Your task to perform on an android device: Go to Reddit.com Image 0: 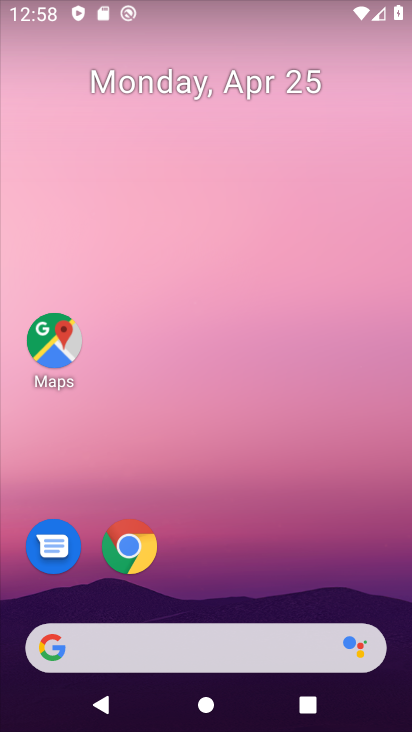
Step 0: drag from (185, 448) to (185, 78)
Your task to perform on an android device: Go to Reddit.com Image 1: 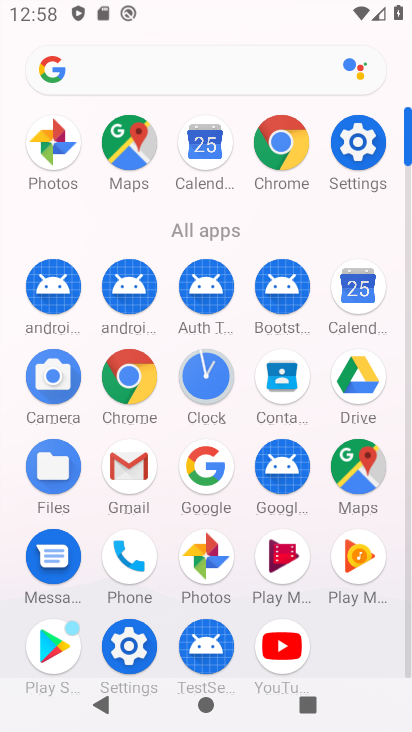
Step 1: click (121, 378)
Your task to perform on an android device: Go to Reddit.com Image 2: 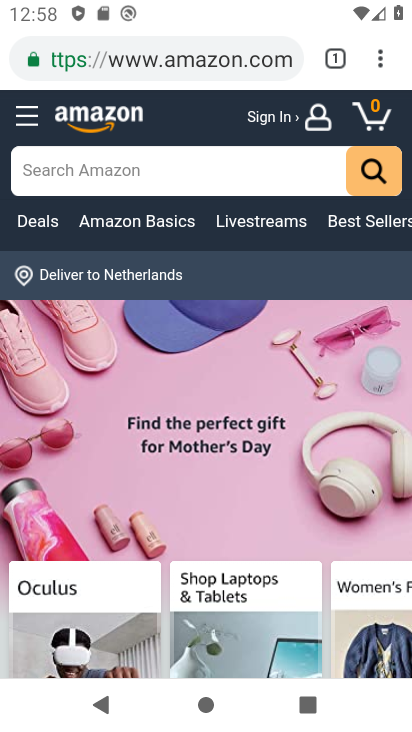
Step 2: click (322, 60)
Your task to perform on an android device: Go to Reddit.com Image 3: 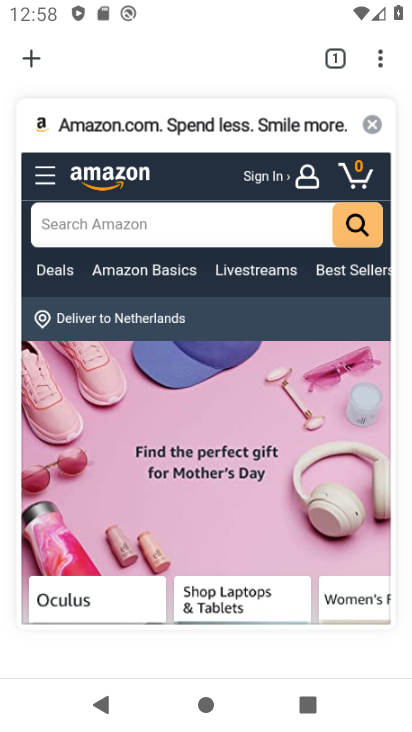
Step 3: click (13, 54)
Your task to perform on an android device: Go to Reddit.com Image 4: 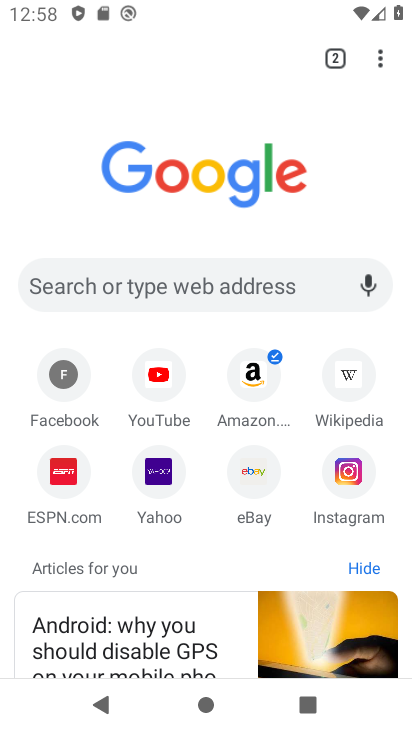
Step 4: click (165, 282)
Your task to perform on an android device: Go to Reddit.com Image 5: 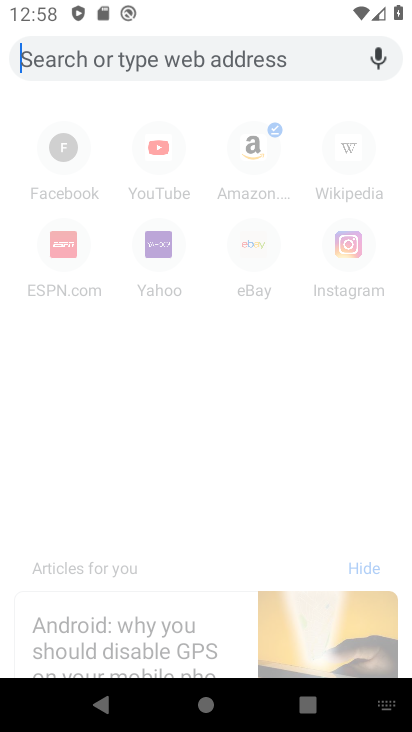
Step 5: type "reddit"
Your task to perform on an android device: Go to Reddit.com Image 6: 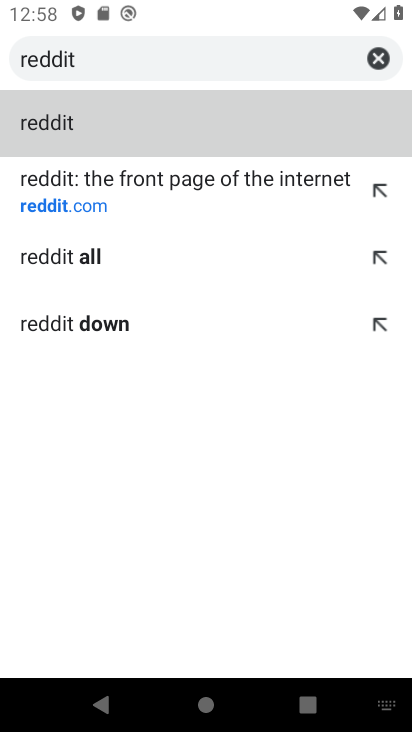
Step 6: click (198, 201)
Your task to perform on an android device: Go to Reddit.com Image 7: 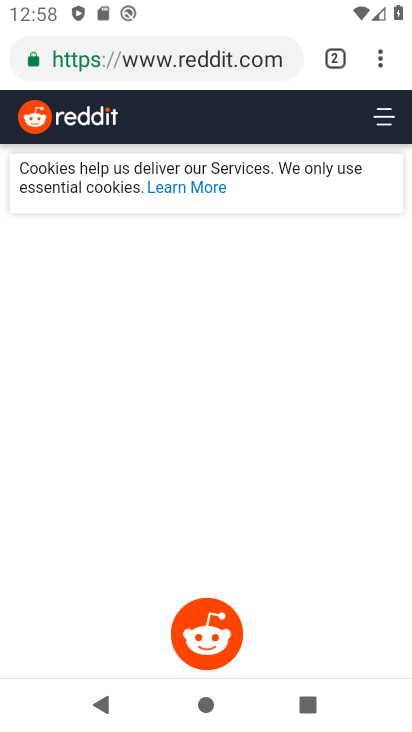
Step 7: task complete